Your task to perform on an android device: Is it going to rain tomorrow? Image 0: 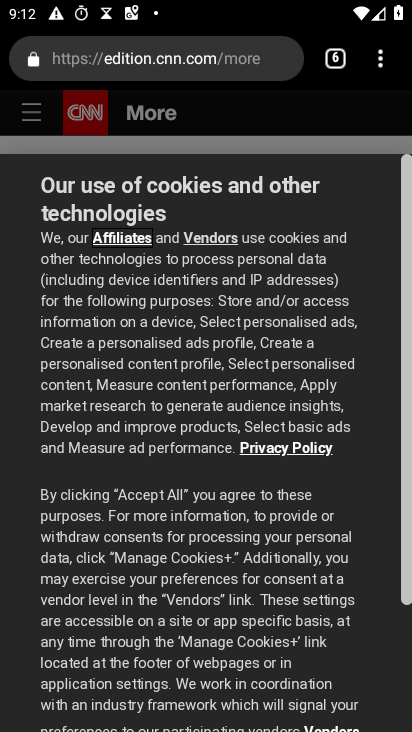
Step 0: press home button
Your task to perform on an android device: Is it going to rain tomorrow? Image 1: 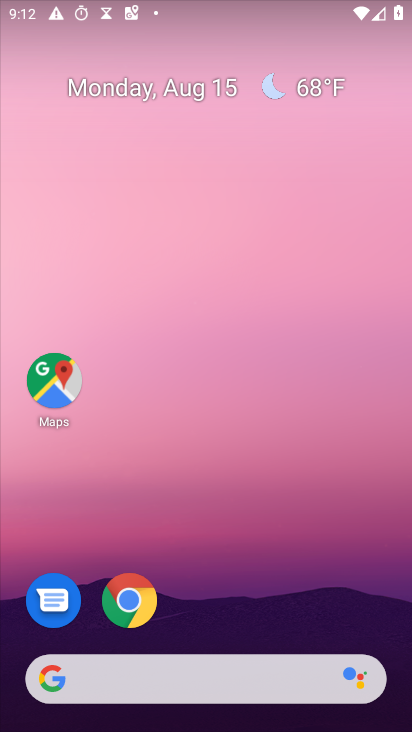
Step 1: click (271, 95)
Your task to perform on an android device: Is it going to rain tomorrow? Image 2: 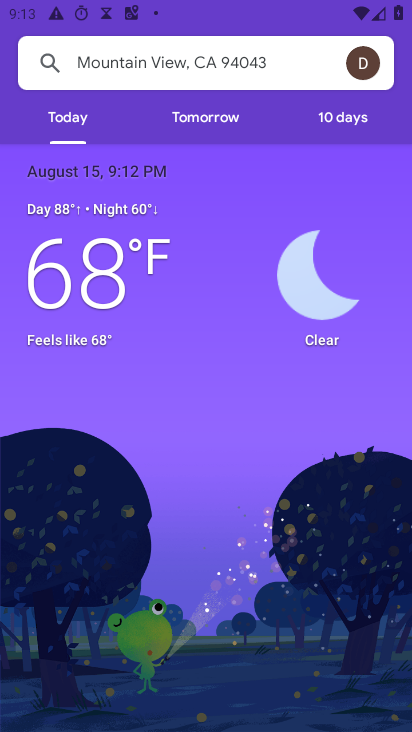
Step 2: click (211, 116)
Your task to perform on an android device: Is it going to rain tomorrow? Image 3: 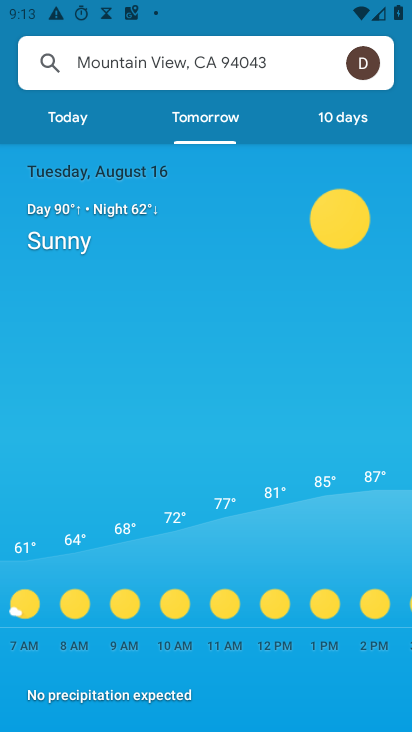
Step 3: task complete